Your task to perform on an android device: What's the weather going to be this weekend? Image 0: 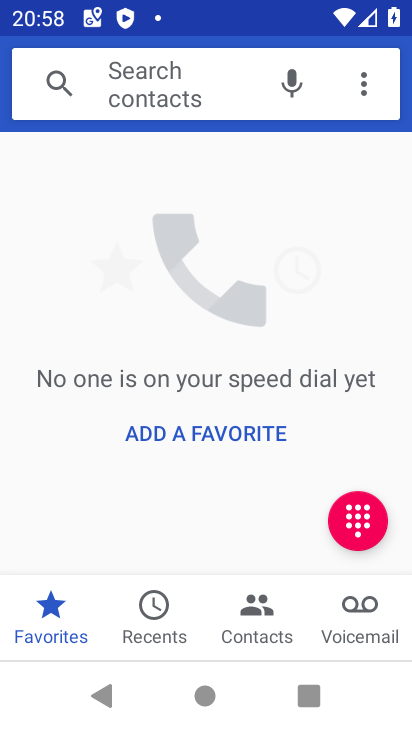
Step 0: press home button
Your task to perform on an android device: What's the weather going to be this weekend? Image 1: 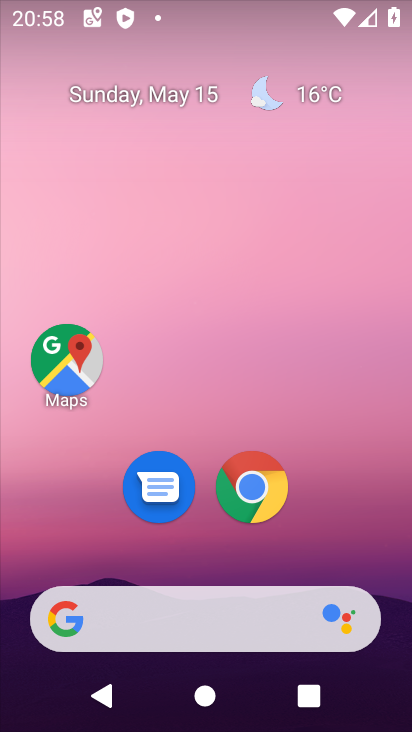
Step 1: click (298, 95)
Your task to perform on an android device: What's the weather going to be this weekend? Image 2: 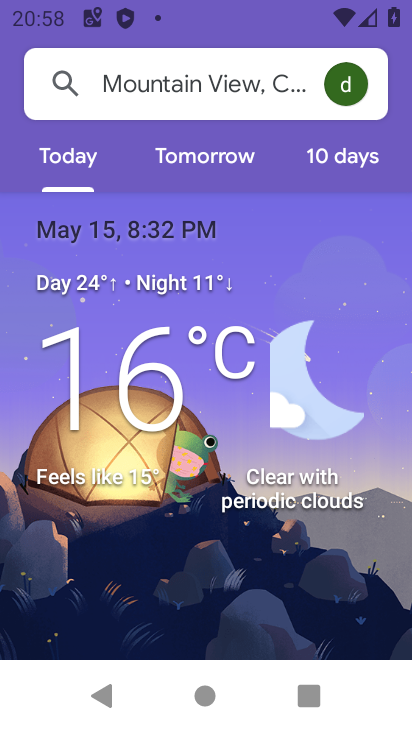
Step 2: click (326, 157)
Your task to perform on an android device: What's the weather going to be this weekend? Image 3: 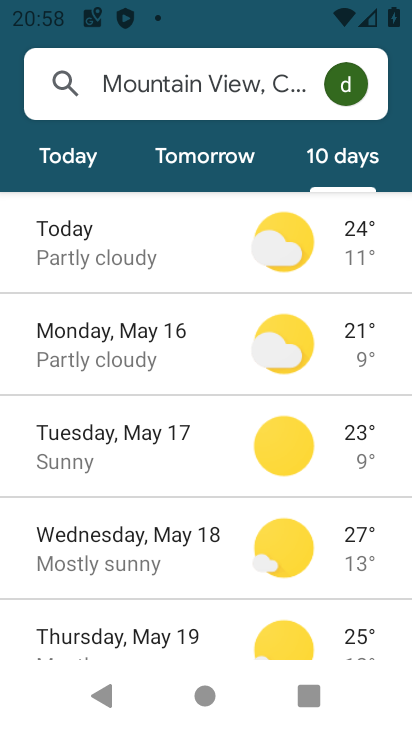
Step 3: task complete